Your task to perform on an android device: open app "Skype" (install if not already installed) and enter user name: "rumor@gmail.com" and password: "kinsman" Image 0: 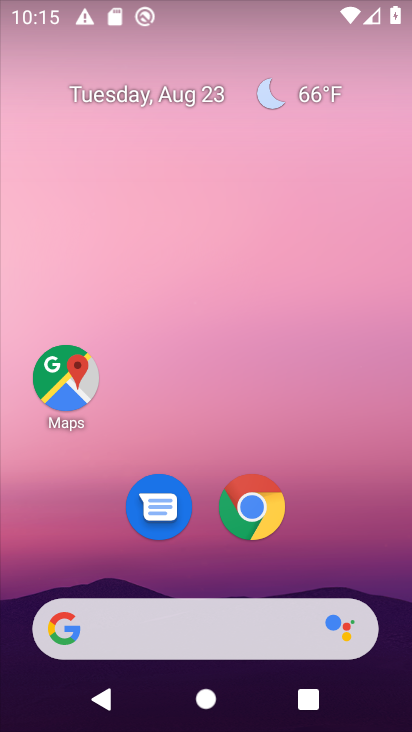
Step 0: drag from (394, 669) to (319, 114)
Your task to perform on an android device: open app "Skype" (install if not already installed) and enter user name: "rumor@gmail.com" and password: "kinsman" Image 1: 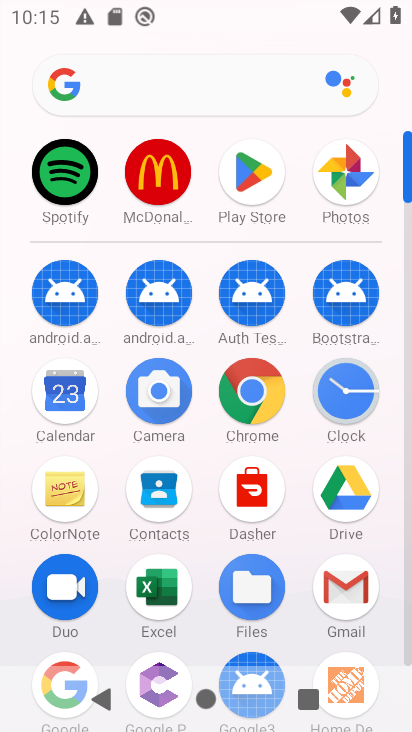
Step 1: click (408, 640)
Your task to perform on an android device: open app "Skype" (install if not already installed) and enter user name: "rumor@gmail.com" and password: "kinsman" Image 2: 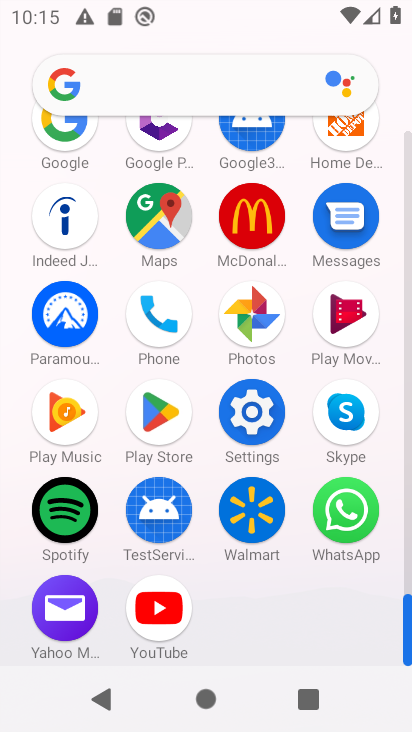
Step 2: click (346, 412)
Your task to perform on an android device: open app "Skype" (install if not already installed) and enter user name: "rumor@gmail.com" and password: "kinsman" Image 3: 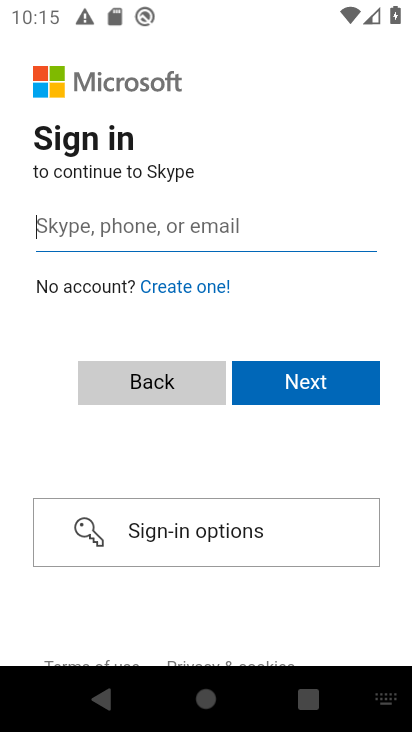
Step 3: click (55, 216)
Your task to perform on an android device: open app "Skype" (install if not already installed) and enter user name: "rumor@gmail.com" and password: "kinsman" Image 4: 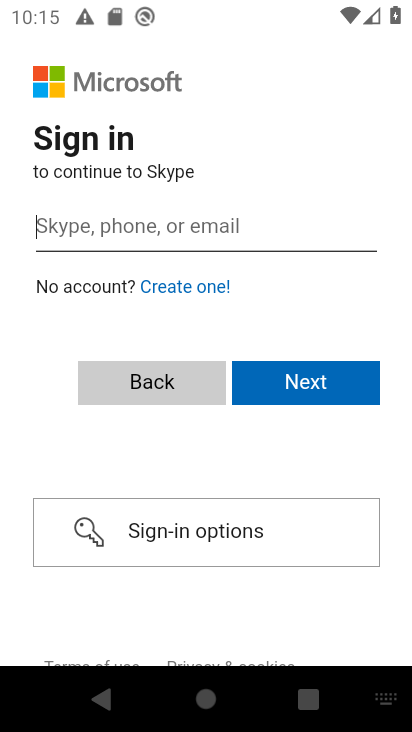
Step 4: type "rumor@gmail.com"
Your task to perform on an android device: open app "Skype" (install if not already installed) and enter user name: "rumor@gmail.com" and password: "kinsman" Image 5: 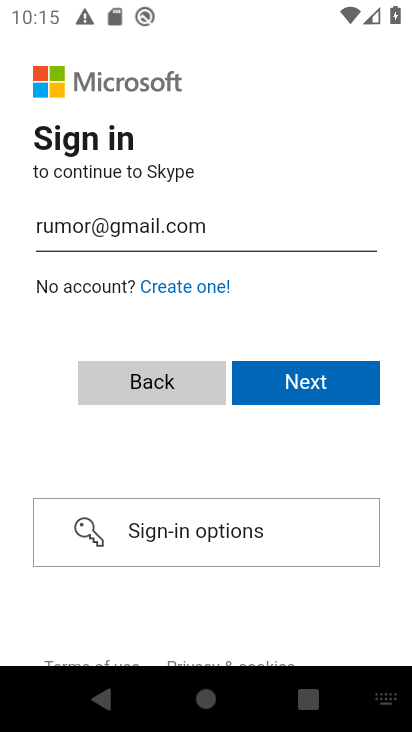
Step 5: click (296, 385)
Your task to perform on an android device: open app "Skype" (install if not already installed) and enter user name: "rumor@gmail.com" and password: "kinsman" Image 6: 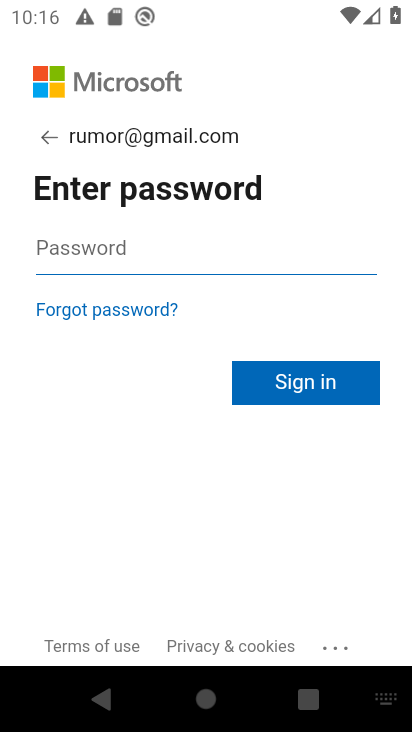
Step 6: type "kinsman"
Your task to perform on an android device: open app "Skype" (install if not already installed) and enter user name: "rumor@gmail.com" and password: "kinsman" Image 7: 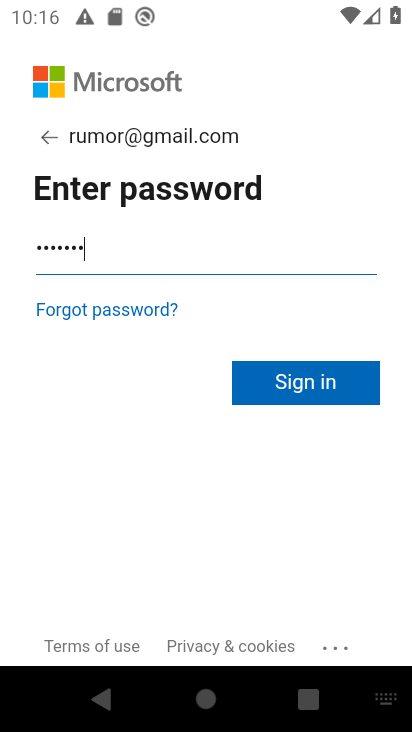
Step 7: task complete